Your task to perform on an android device: open app "Spotify" Image 0: 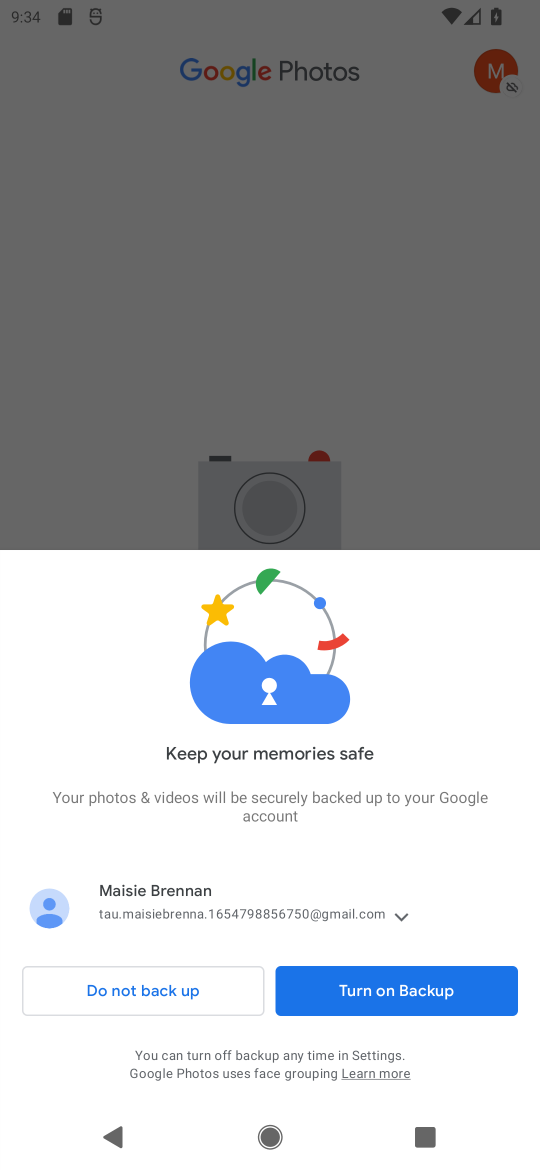
Step 0: press home button
Your task to perform on an android device: open app "Spotify" Image 1: 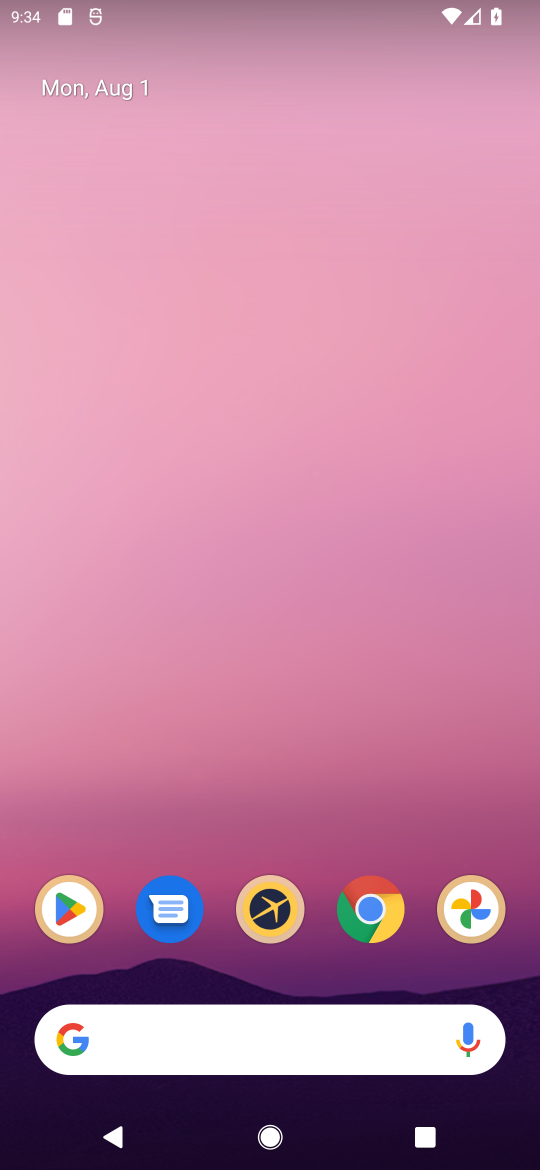
Step 1: click (73, 916)
Your task to perform on an android device: open app "Spotify" Image 2: 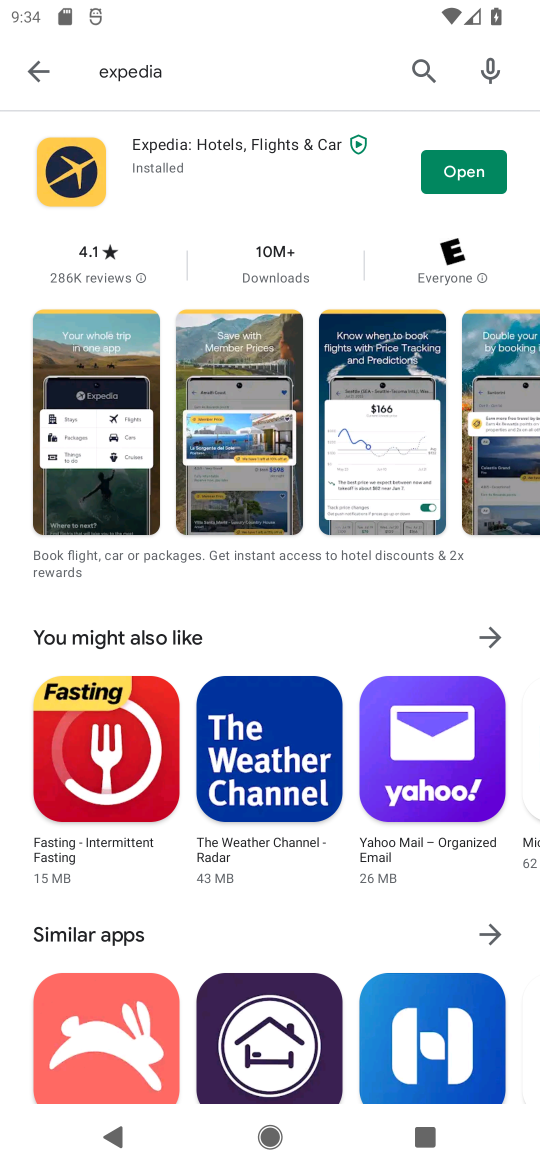
Step 2: click (191, 78)
Your task to perform on an android device: open app "Spotify" Image 3: 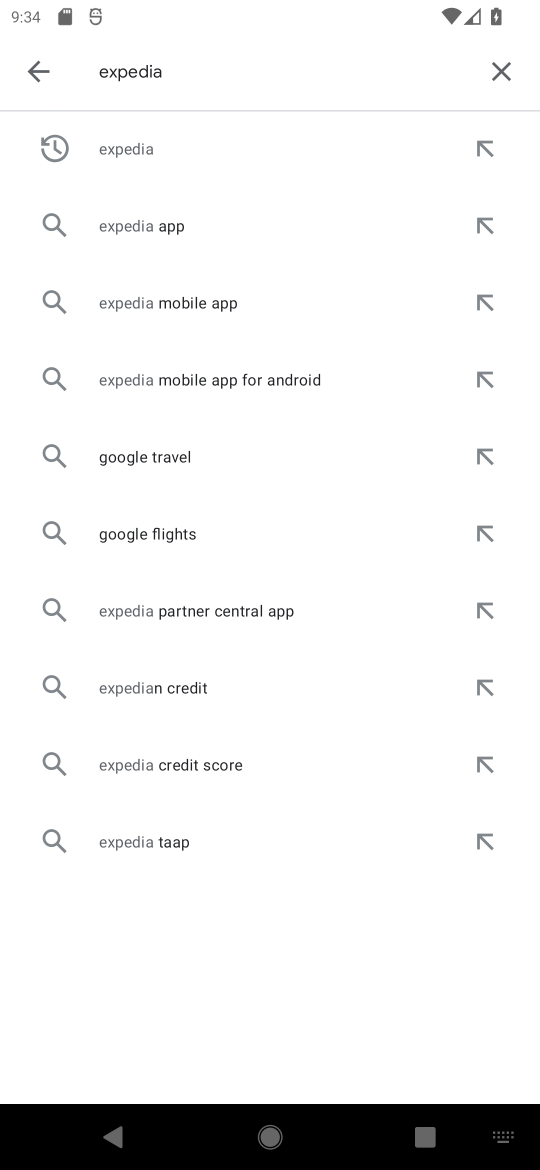
Step 3: click (492, 66)
Your task to perform on an android device: open app "Spotify" Image 4: 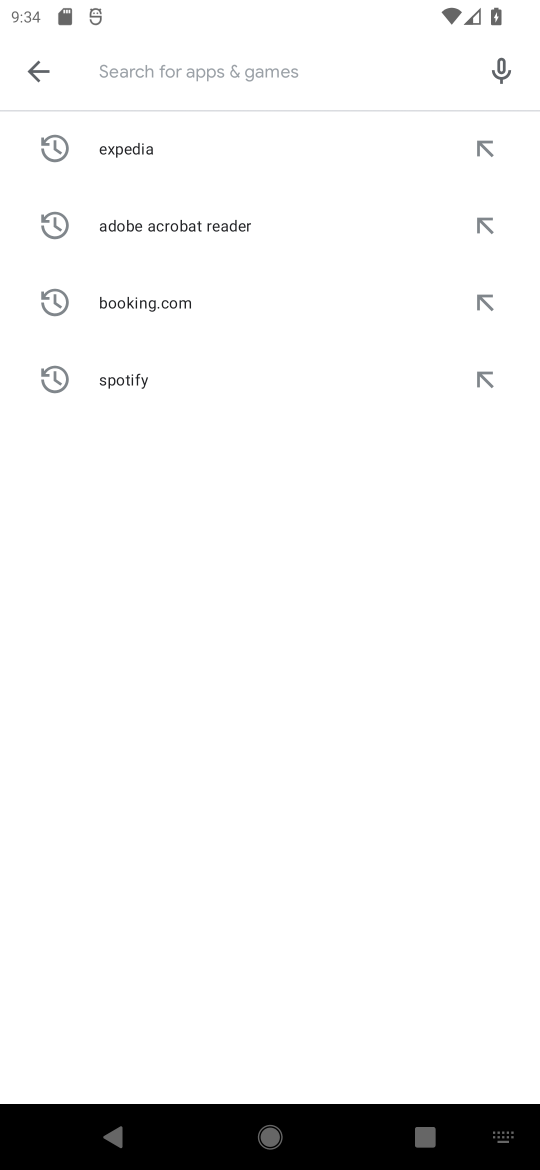
Step 4: type "spotify"
Your task to perform on an android device: open app "Spotify" Image 5: 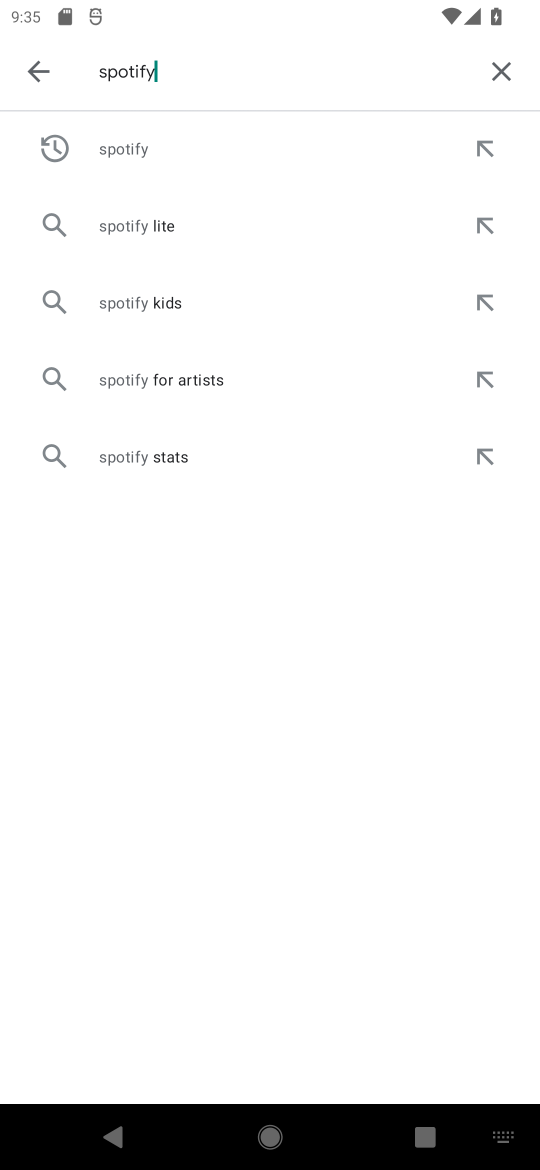
Step 5: click (142, 143)
Your task to perform on an android device: open app "Spotify" Image 6: 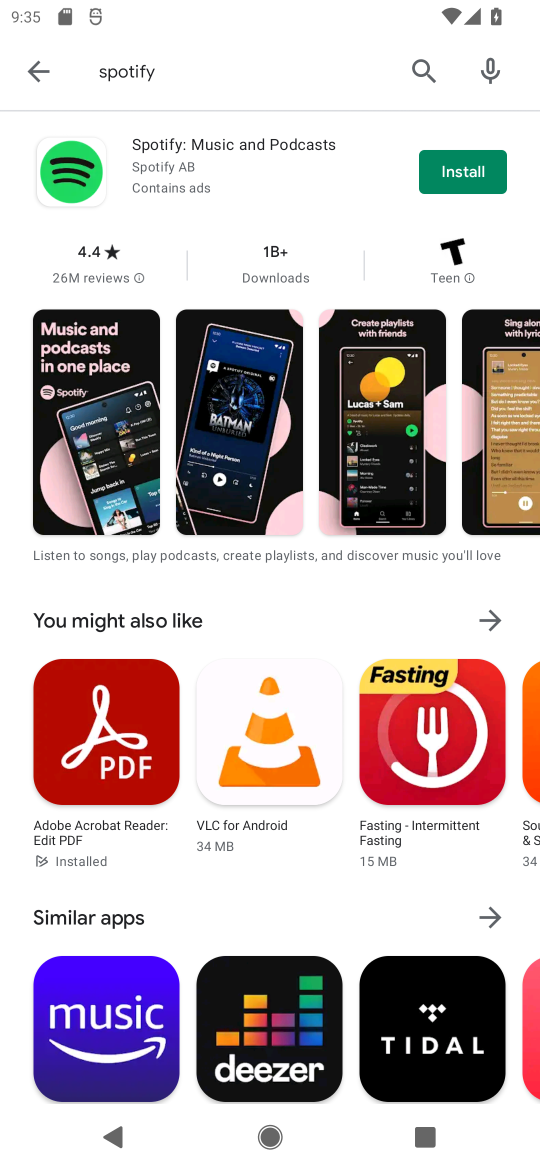
Step 6: task complete